Your task to perform on an android device: turn on location history Image 0: 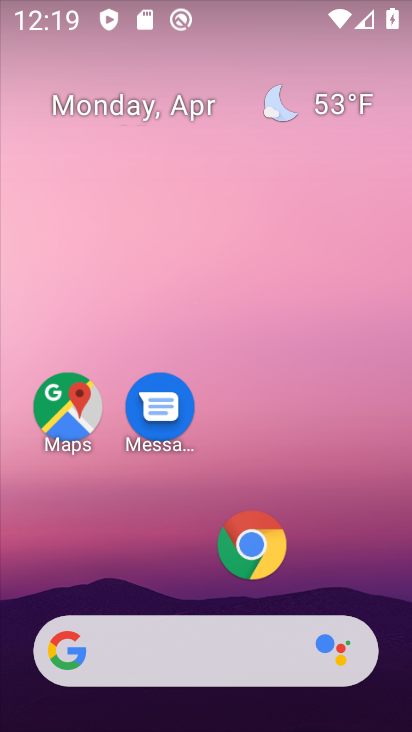
Step 0: drag from (153, 509) to (219, 21)
Your task to perform on an android device: turn on location history Image 1: 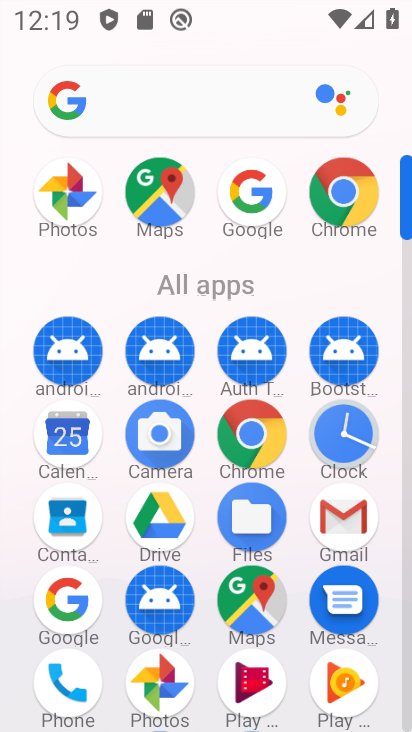
Step 1: drag from (204, 569) to (219, 261)
Your task to perform on an android device: turn on location history Image 2: 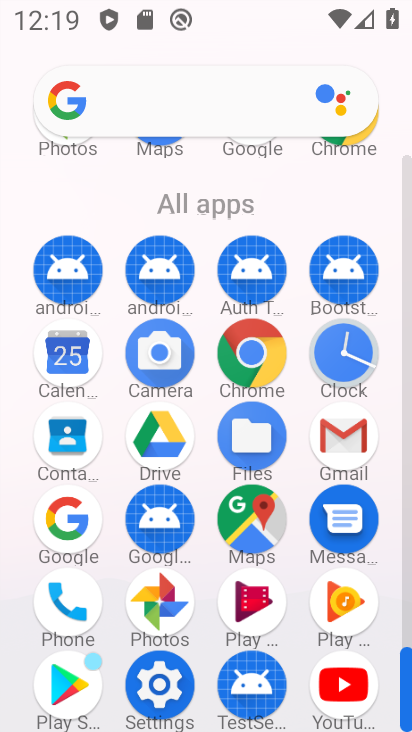
Step 2: click (151, 694)
Your task to perform on an android device: turn on location history Image 3: 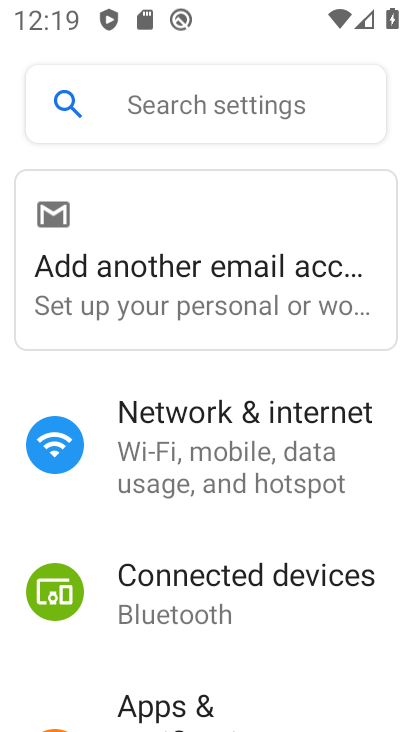
Step 3: drag from (263, 610) to (252, 86)
Your task to perform on an android device: turn on location history Image 4: 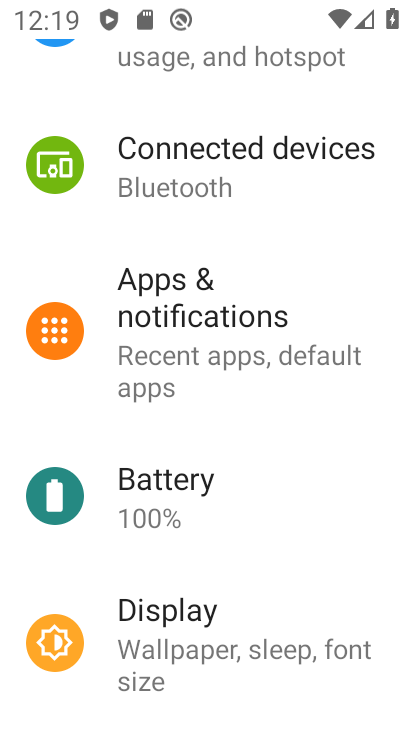
Step 4: drag from (262, 598) to (310, 214)
Your task to perform on an android device: turn on location history Image 5: 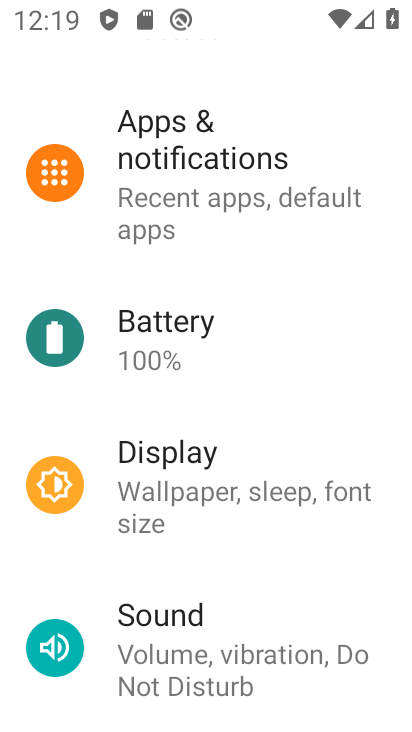
Step 5: drag from (252, 693) to (253, 323)
Your task to perform on an android device: turn on location history Image 6: 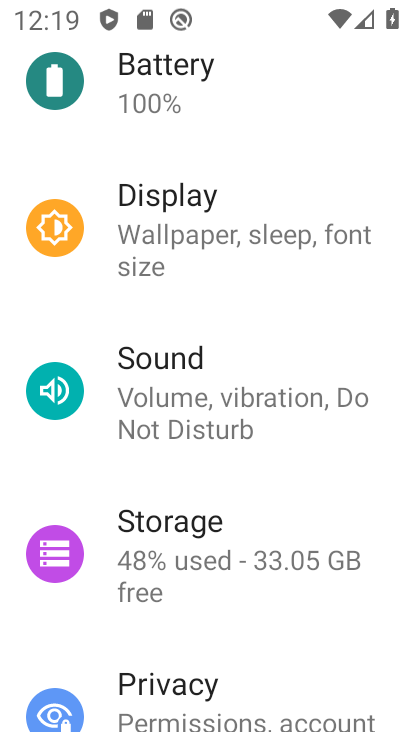
Step 6: drag from (251, 556) to (258, 230)
Your task to perform on an android device: turn on location history Image 7: 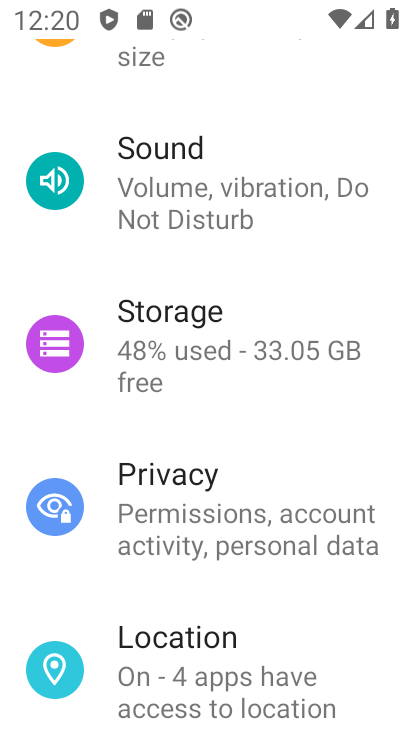
Step 7: click (204, 662)
Your task to perform on an android device: turn on location history Image 8: 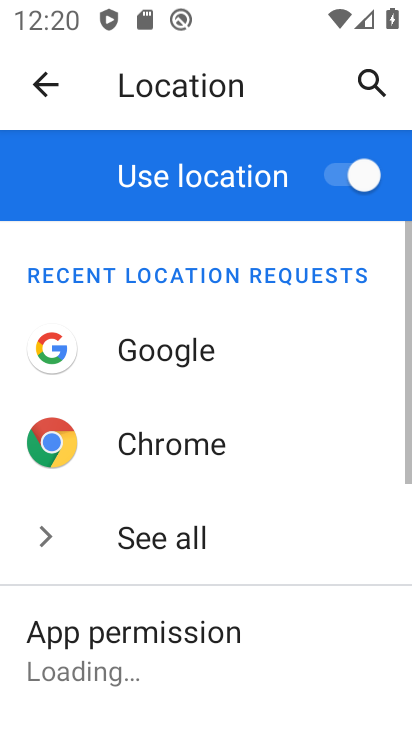
Step 8: drag from (308, 520) to (322, 109)
Your task to perform on an android device: turn on location history Image 9: 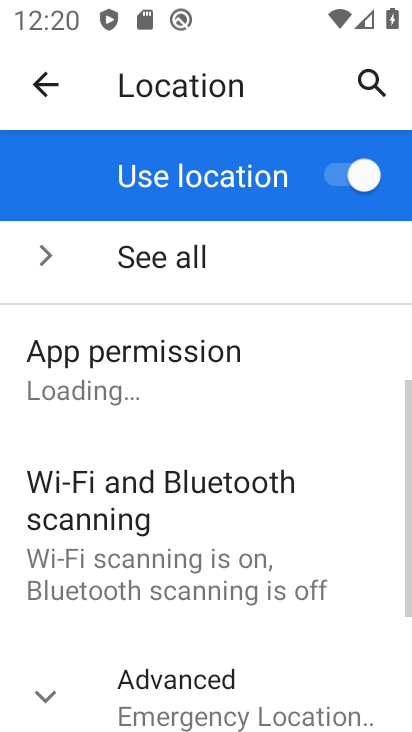
Step 9: drag from (289, 626) to (311, 227)
Your task to perform on an android device: turn on location history Image 10: 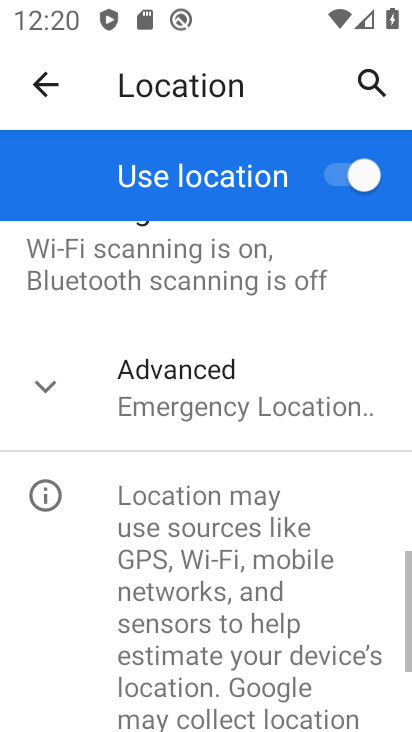
Step 10: click (144, 392)
Your task to perform on an android device: turn on location history Image 11: 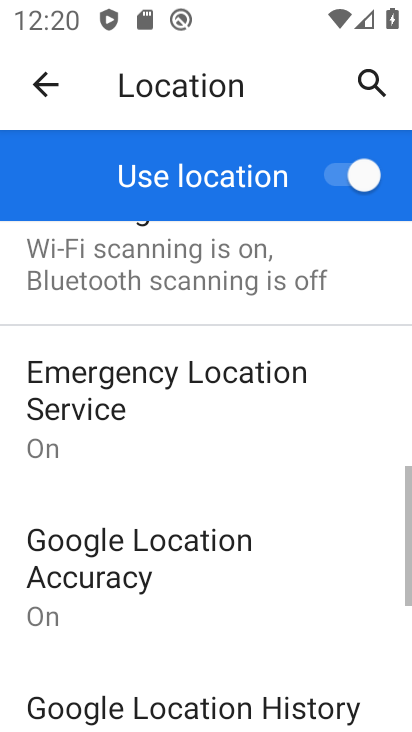
Step 11: drag from (218, 477) to (209, 312)
Your task to perform on an android device: turn on location history Image 12: 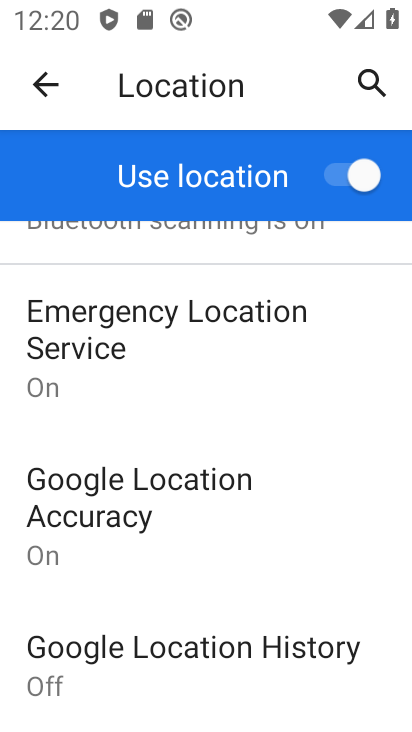
Step 12: click (191, 678)
Your task to perform on an android device: turn on location history Image 13: 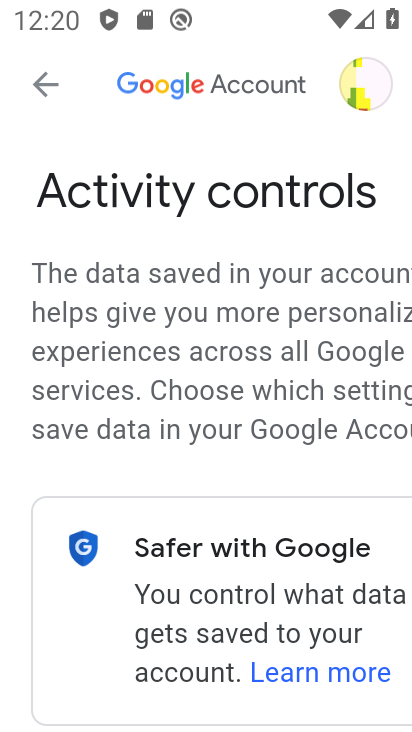
Step 13: drag from (294, 585) to (262, 130)
Your task to perform on an android device: turn on location history Image 14: 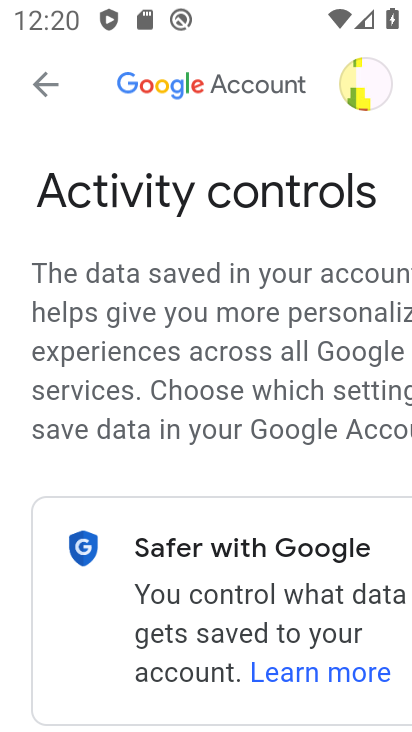
Step 14: drag from (304, 622) to (277, 182)
Your task to perform on an android device: turn on location history Image 15: 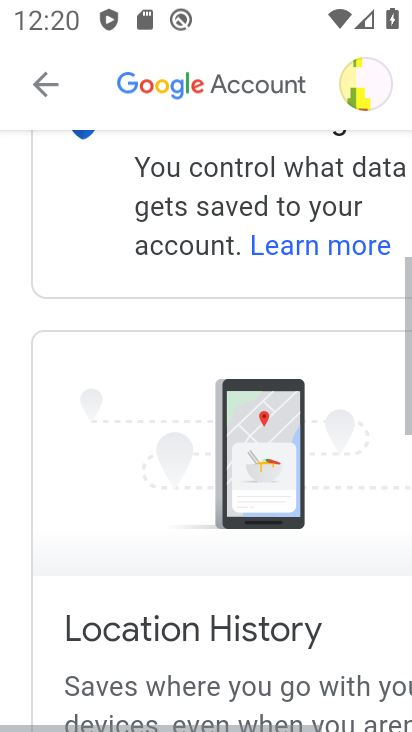
Step 15: drag from (292, 642) to (292, 220)
Your task to perform on an android device: turn on location history Image 16: 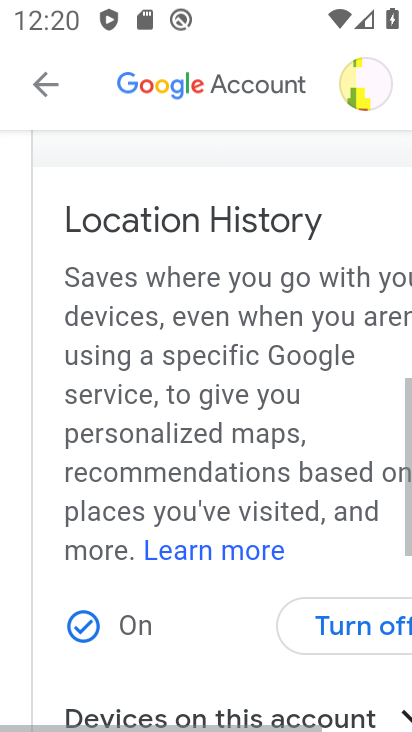
Step 16: drag from (276, 664) to (245, 208)
Your task to perform on an android device: turn on location history Image 17: 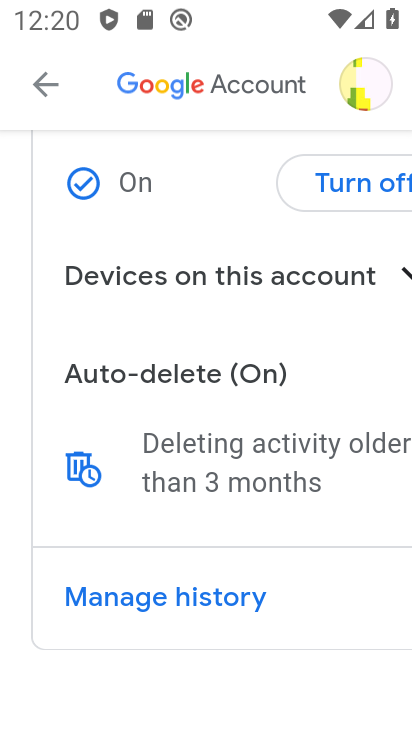
Step 17: click (350, 184)
Your task to perform on an android device: turn on location history Image 18: 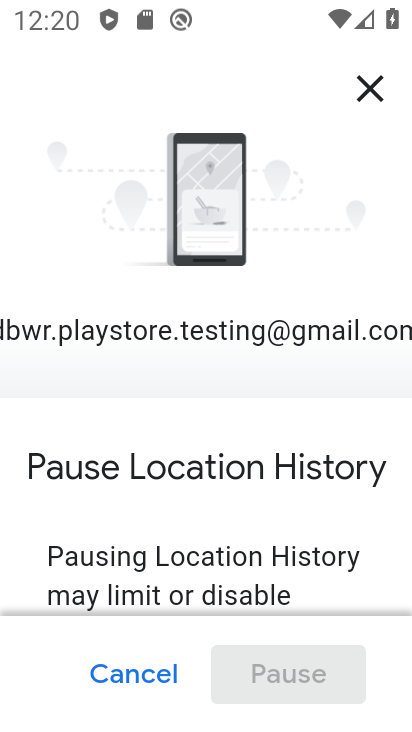
Step 18: task complete